Your task to perform on an android device: change the upload size in google photos Image 0: 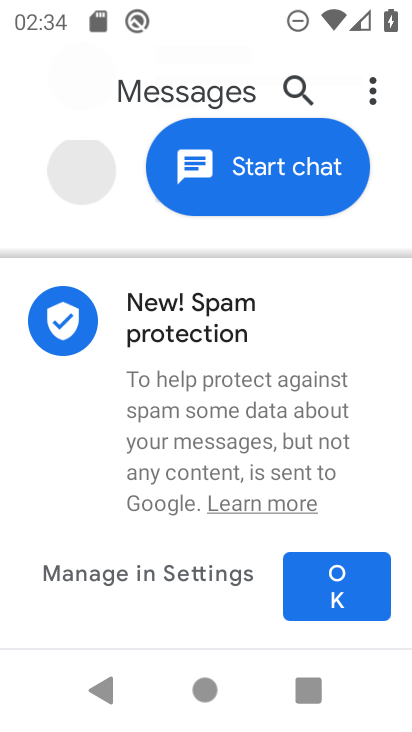
Step 0: press home button
Your task to perform on an android device: change the upload size in google photos Image 1: 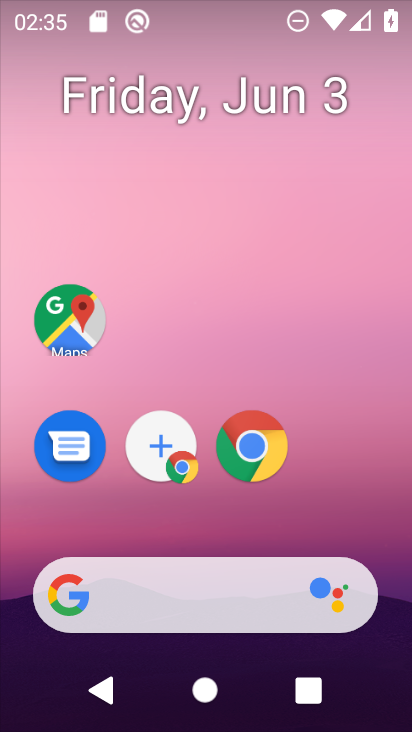
Step 1: drag from (155, 581) to (207, 91)
Your task to perform on an android device: change the upload size in google photos Image 2: 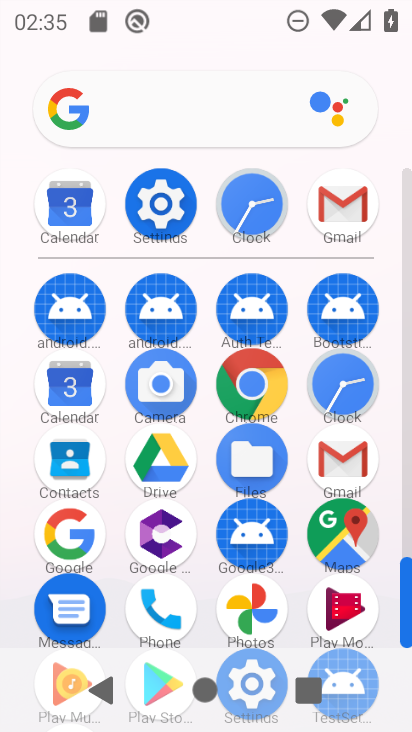
Step 2: click (258, 607)
Your task to perform on an android device: change the upload size in google photos Image 3: 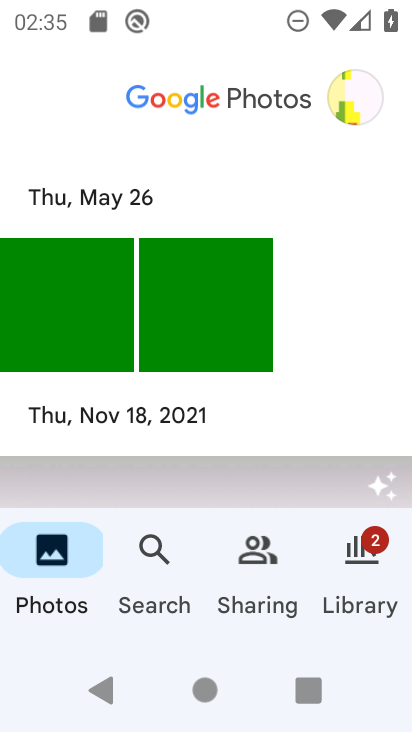
Step 3: click (345, 87)
Your task to perform on an android device: change the upload size in google photos Image 4: 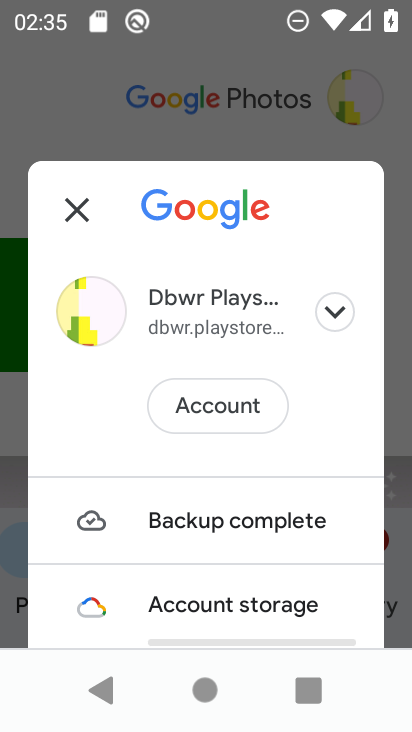
Step 4: drag from (258, 619) to (232, 2)
Your task to perform on an android device: change the upload size in google photos Image 5: 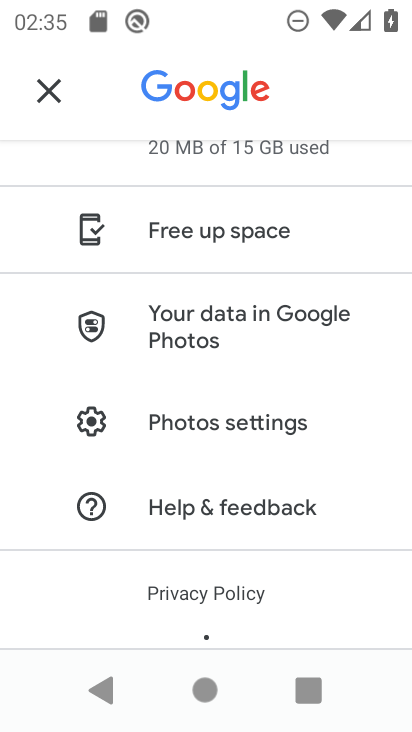
Step 5: click (232, 427)
Your task to perform on an android device: change the upload size in google photos Image 6: 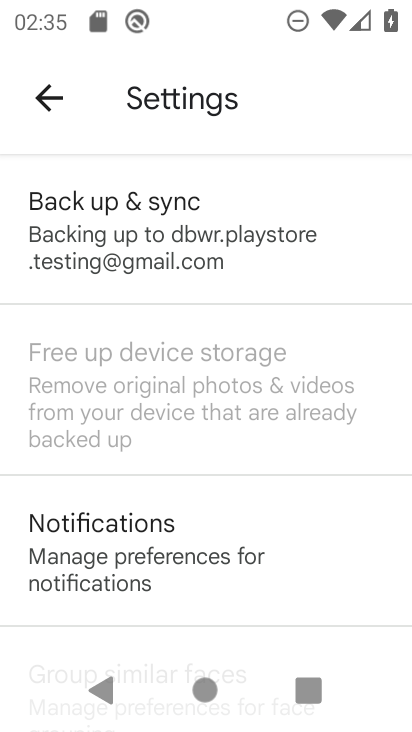
Step 6: click (170, 224)
Your task to perform on an android device: change the upload size in google photos Image 7: 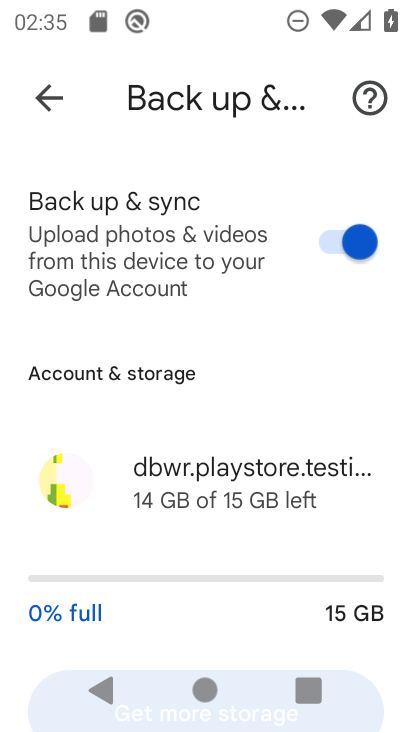
Step 7: drag from (259, 578) to (196, 43)
Your task to perform on an android device: change the upload size in google photos Image 8: 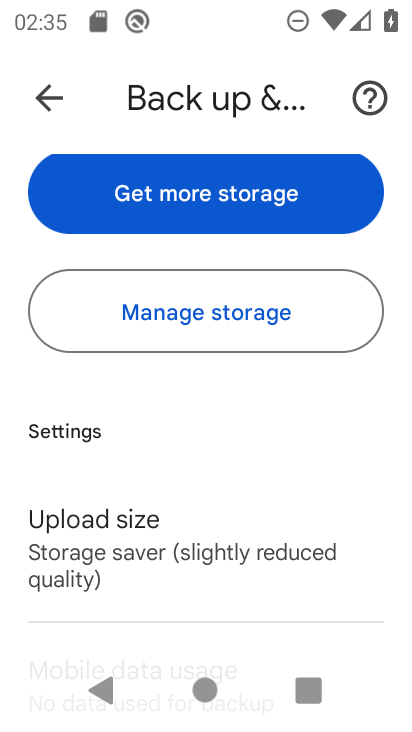
Step 8: click (160, 524)
Your task to perform on an android device: change the upload size in google photos Image 9: 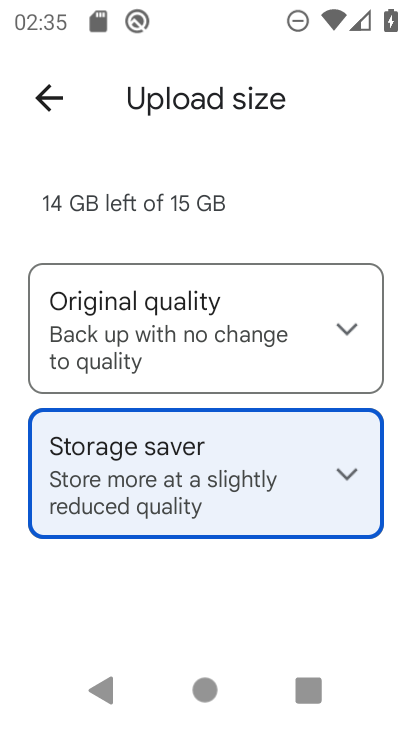
Step 9: click (234, 353)
Your task to perform on an android device: change the upload size in google photos Image 10: 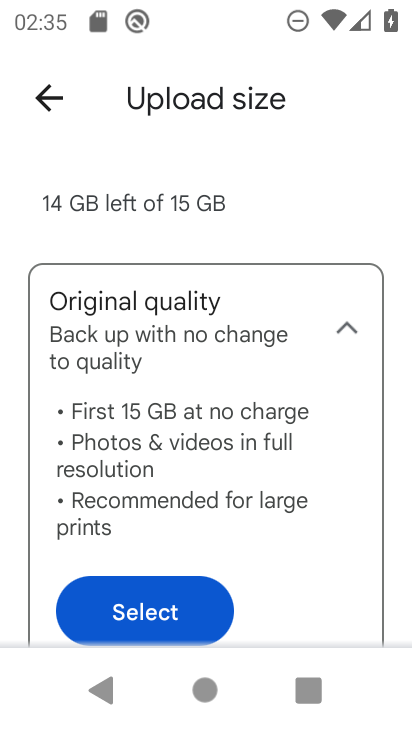
Step 10: click (120, 625)
Your task to perform on an android device: change the upload size in google photos Image 11: 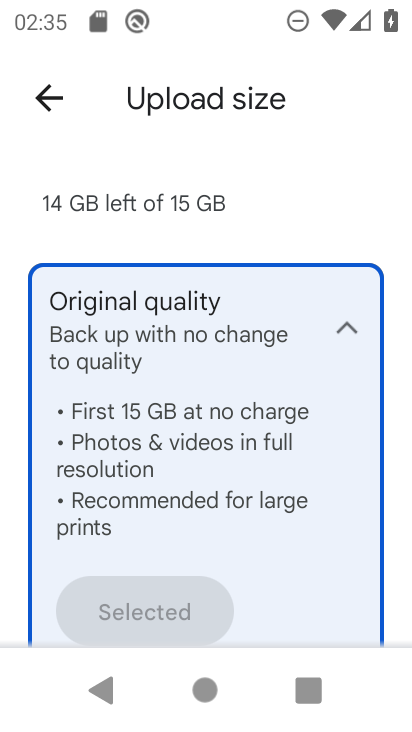
Step 11: task complete